Your task to perform on an android device: add a contact in the contacts app Image 0: 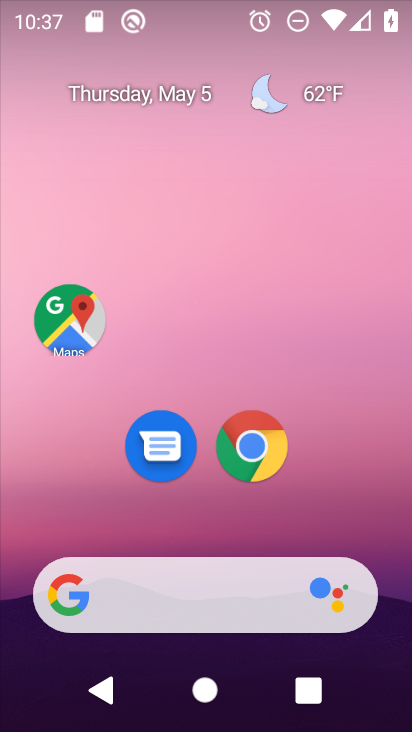
Step 0: drag from (251, 630) to (308, 217)
Your task to perform on an android device: add a contact in the contacts app Image 1: 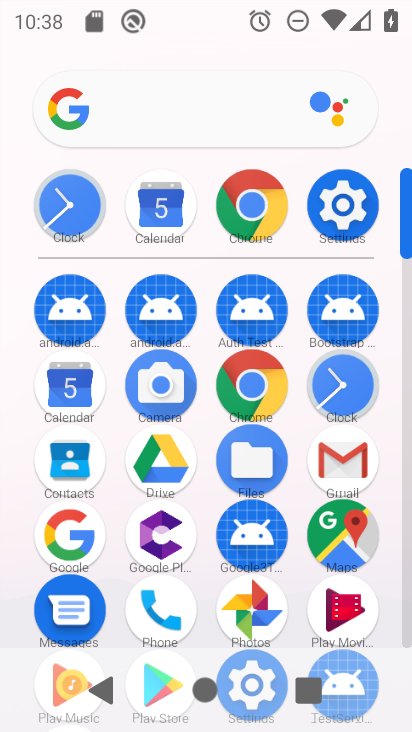
Step 1: click (138, 611)
Your task to perform on an android device: add a contact in the contacts app Image 2: 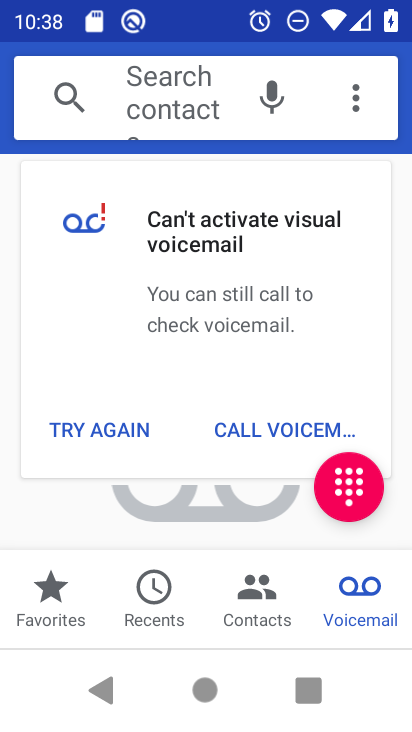
Step 2: click (250, 592)
Your task to perform on an android device: add a contact in the contacts app Image 3: 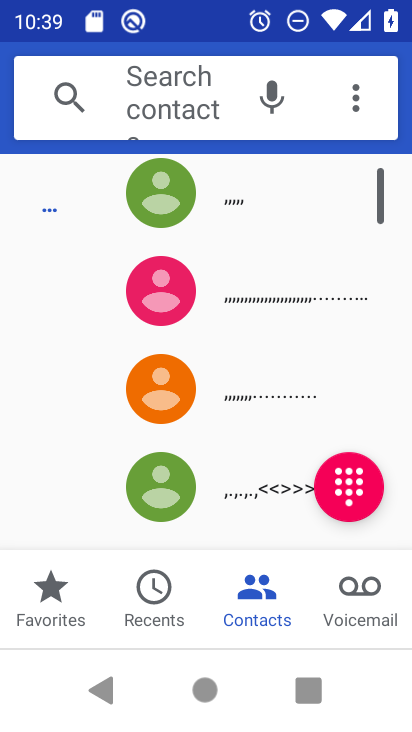
Step 3: drag from (193, 264) to (103, 498)
Your task to perform on an android device: add a contact in the contacts app Image 4: 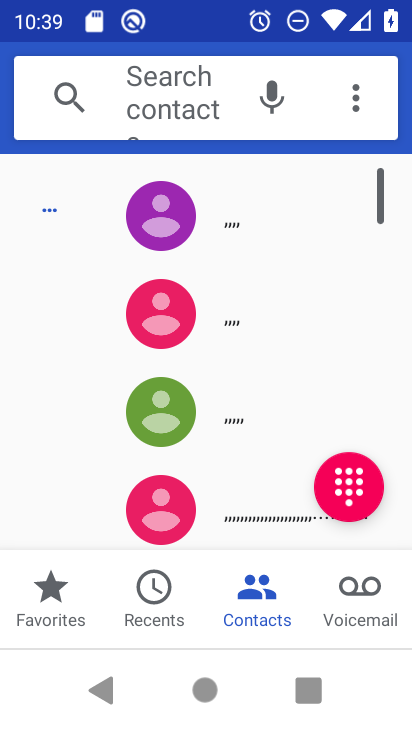
Step 4: drag from (245, 138) to (167, 458)
Your task to perform on an android device: add a contact in the contacts app Image 5: 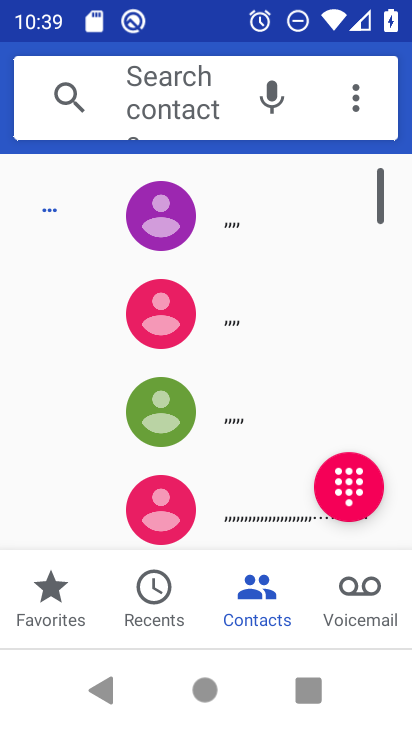
Step 5: drag from (246, 249) to (211, 502)
Your task to perform on an android device: add a contact in the contacts app Image 6: 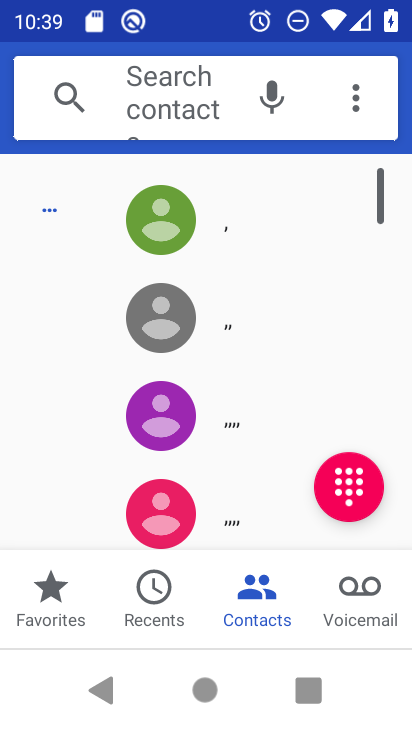
Step 6: drag from (222, 239) to (191, 544)
Your task to perform on an android device: add a contact in the contacts app Image 7: 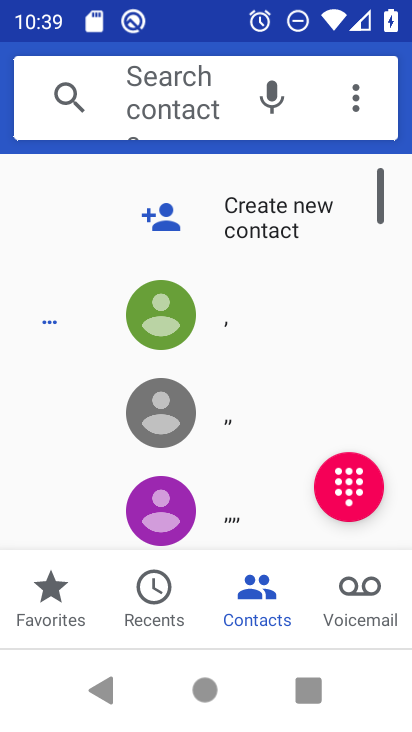
Step 7: click (289, 214)
Your task to perform on an android device: add a contact in the contacts app Image 8: 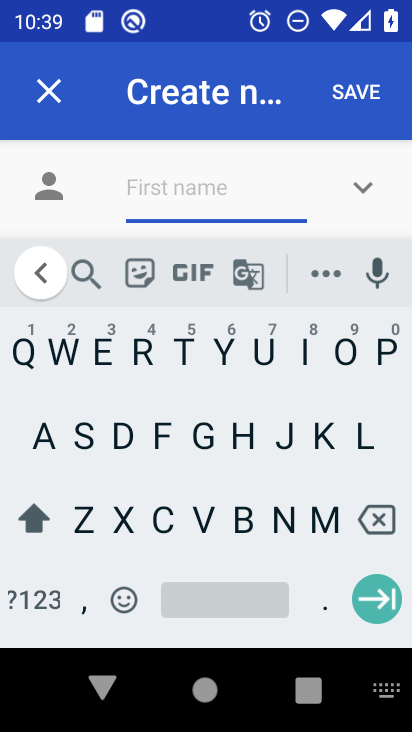
Step 8: click (147, 346)
Your task to perform on an android device: add a contact in the contacts app Image 9: 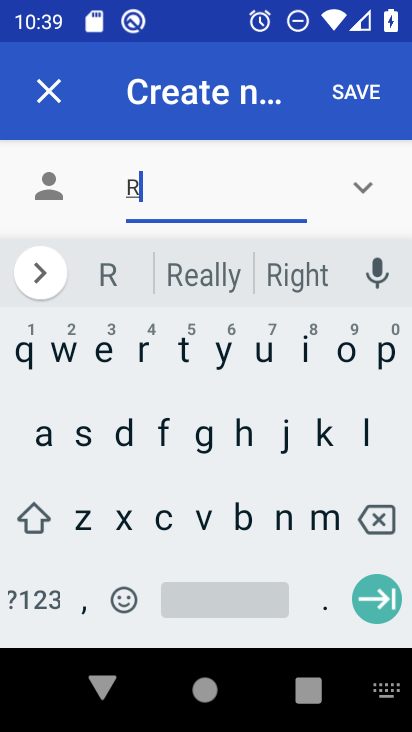
Step 9: click (307, 352)
Your task to perform on an android device: add a contact in the contacts app Image 10: 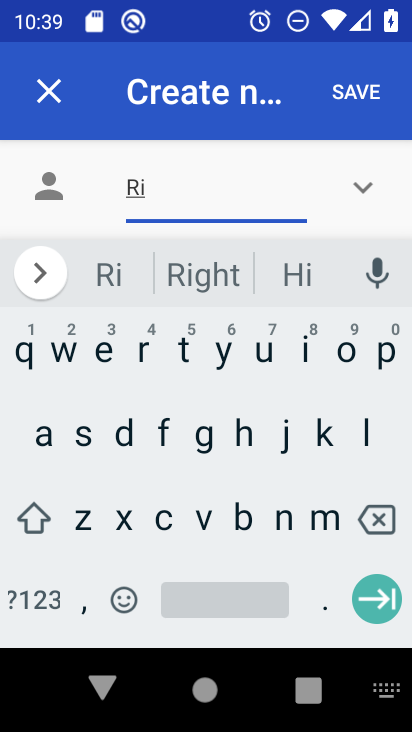
Step 10: click (224, 351)
Your task to perform on an android device: add a contact in the contacts app Image 11: 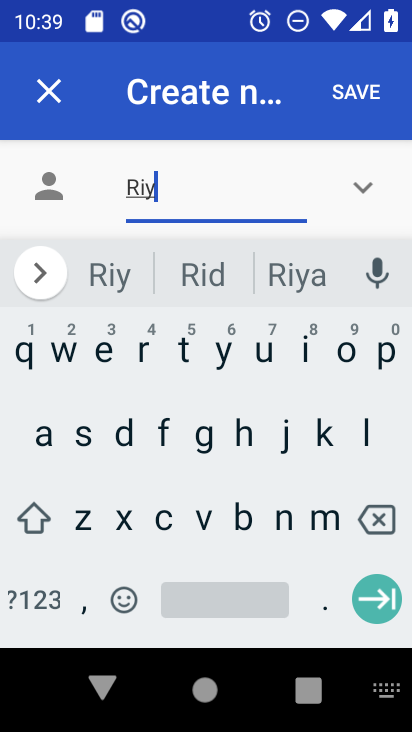
Step 11: click (40, 433)
Your task to perform on an android device: add a contact in the contacts app Image 12: 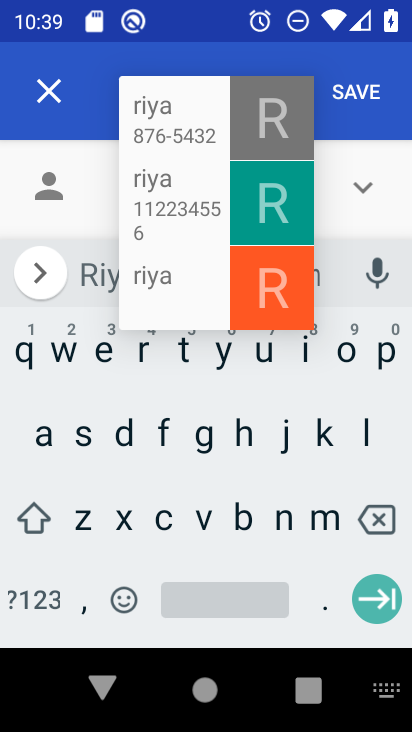
Step 12: click (208, 586)
Your task to perform on an android device: add a contact in the contacts app Image 13: 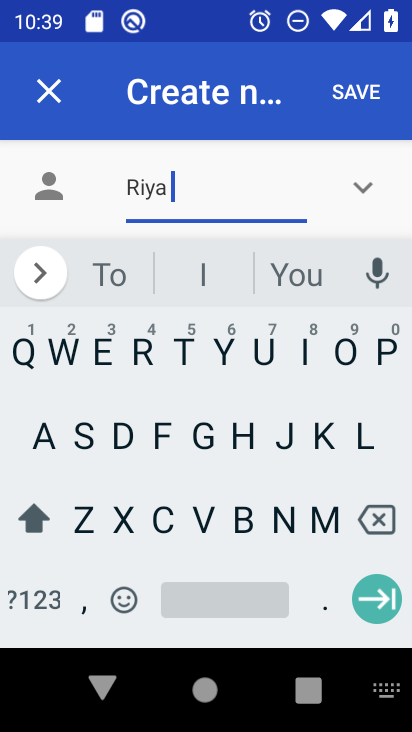
Step 13: click (138, 364)
Your task to perform on an android device: add a contact in the contacts app Image 14: 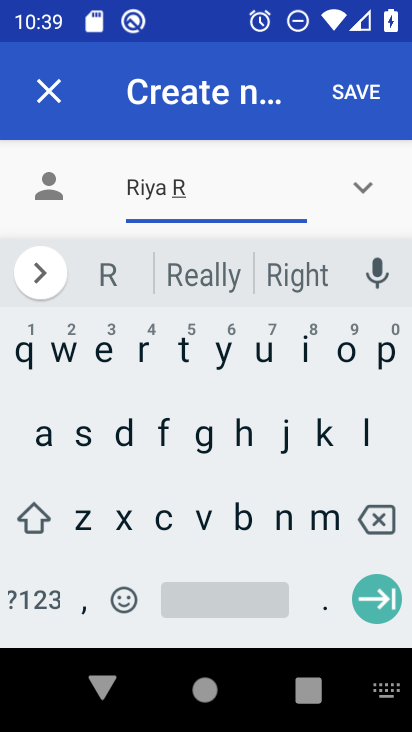
Step 14: click (41, 435)
Your task to perform on an android device: add a contact in the contacts app Image 15: 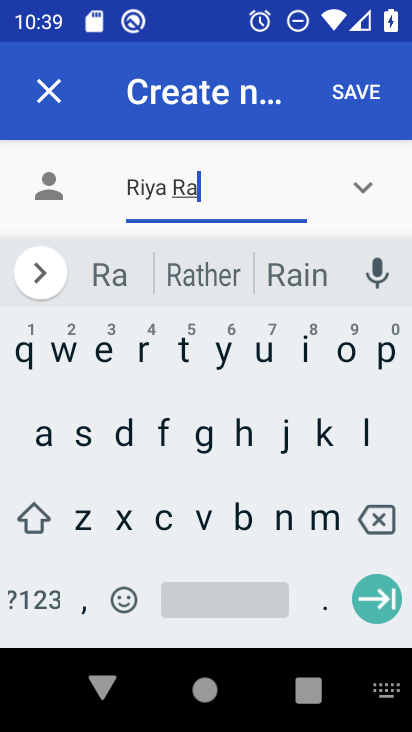
Step 15: click (303, 349)
Your task to perform on an android device: add a contact in the contacts app Image 16: 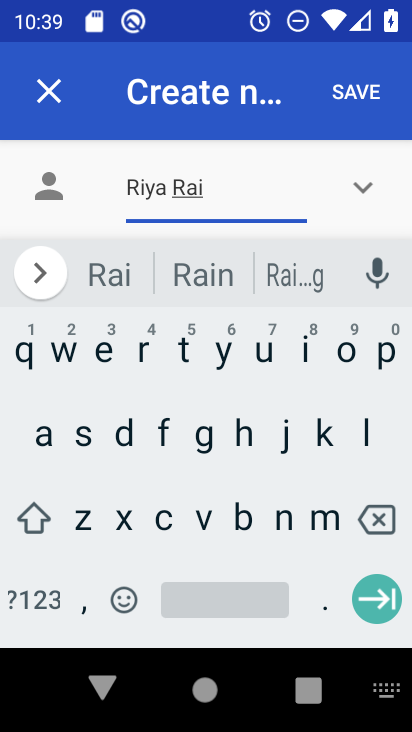
Step 16: drag from (285, 212) to (305, 104)
Your task to perform on an android device: add a contact in the contacts app Image 17: 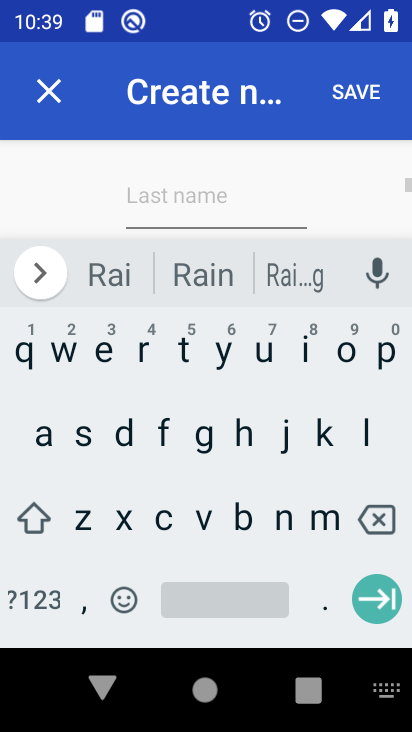
Step 17: click (217, 160)
Your task to perform on an android device: add a contact in the contacts app Image 18: 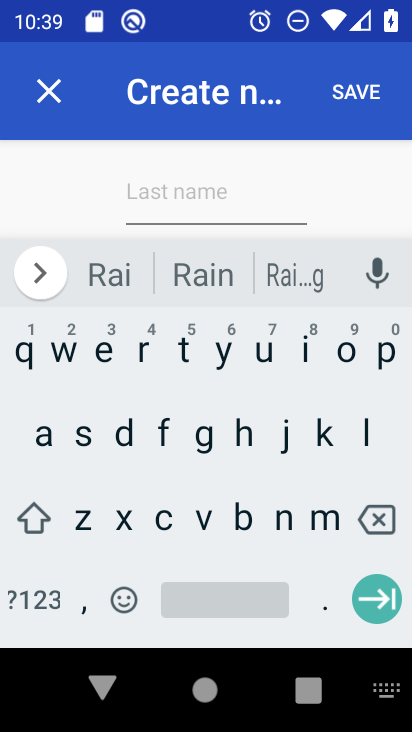
Step 18: press back button
Your task to perform on an android device: add a contact in the contacts app Image 19: 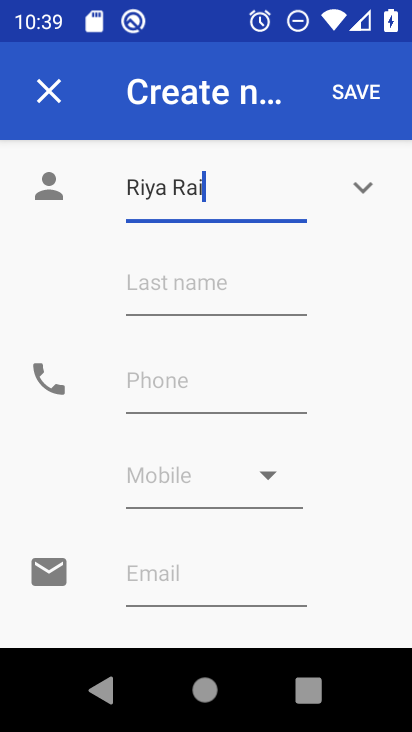
Step 19: click (188, 289)
Your task to perform on an android device: add a contact in the contacts app Image 20: 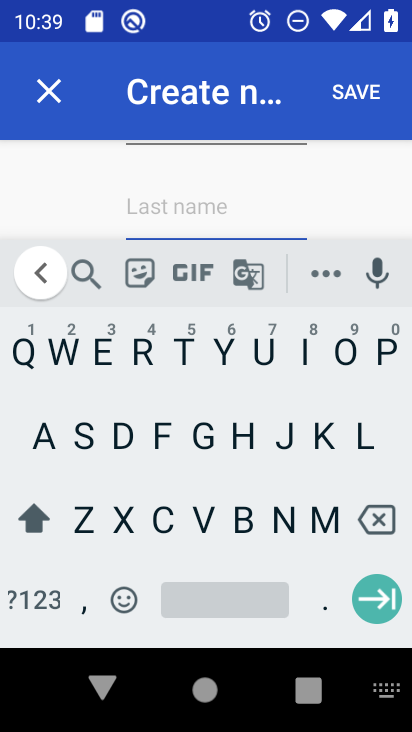
Step 20: press back button
Your task to perform on an android device: add a contact in the contacts app Image 21: 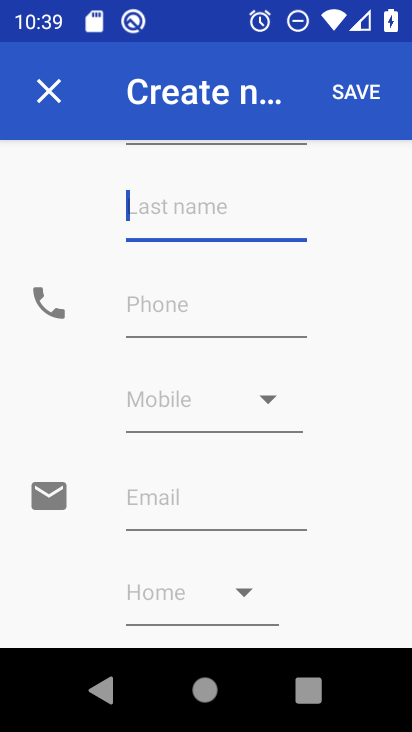
Step 21: click (171, 404)
Your task to perform on an android device: add a contact in the contacts app Image 22: 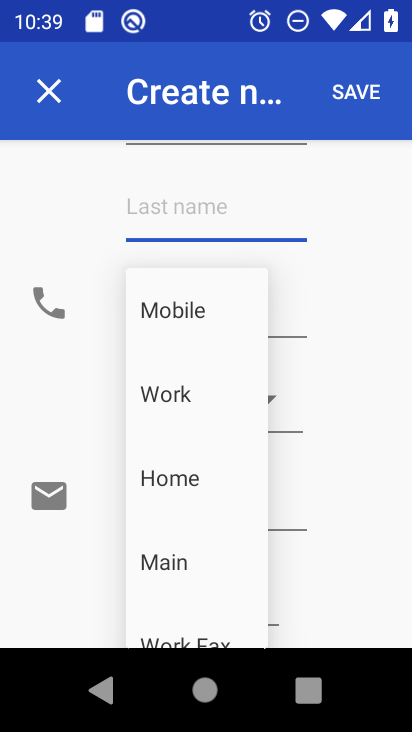
Step 22: click (5, 423)
Your task to perform on an android device: add a contact in the contacts app Image 23: 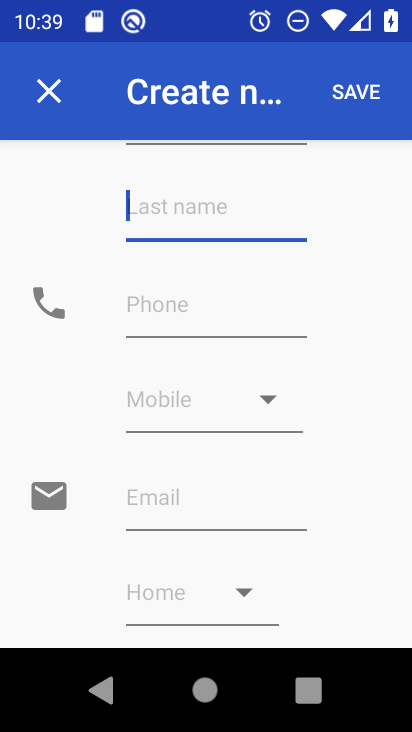
Step 23: click (179, 404)
Your task to perform on an android device: add a contact in the contacts app Image 24: 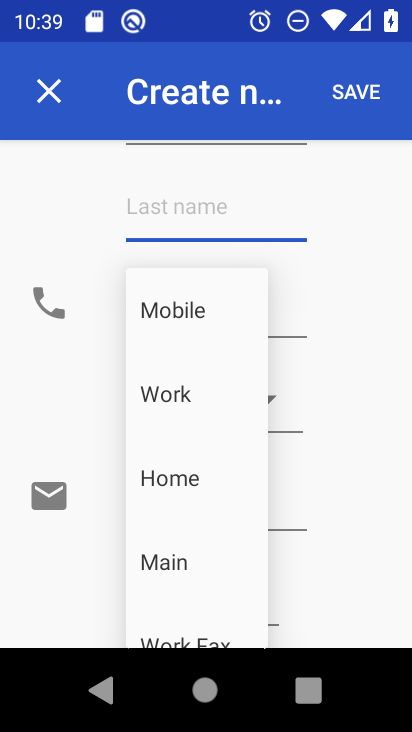
Step 24: click (182, 316)
Your task to perform on an android device: add a contact in the contacts app Image 25: 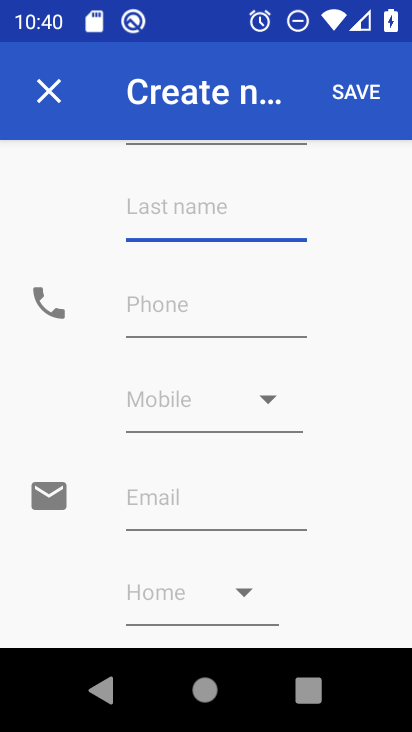
Step 25: click (181, 311)
Your task to perform on an android device: add a contact in the contacts app Image 26: 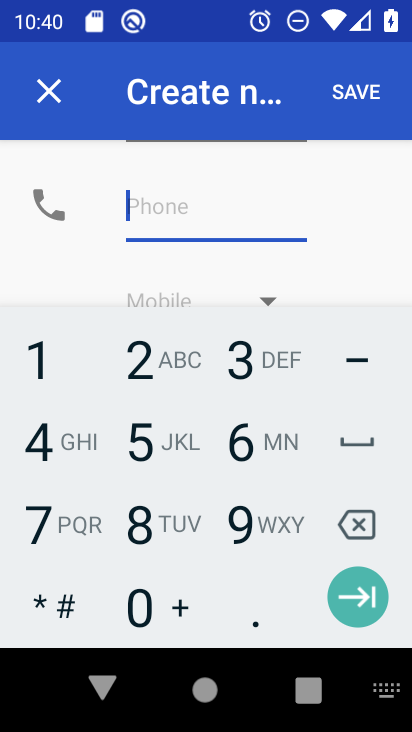
Step 26: click (248, 521)
Your task to perform on an android device: add a contact in the contacts app Image 27: 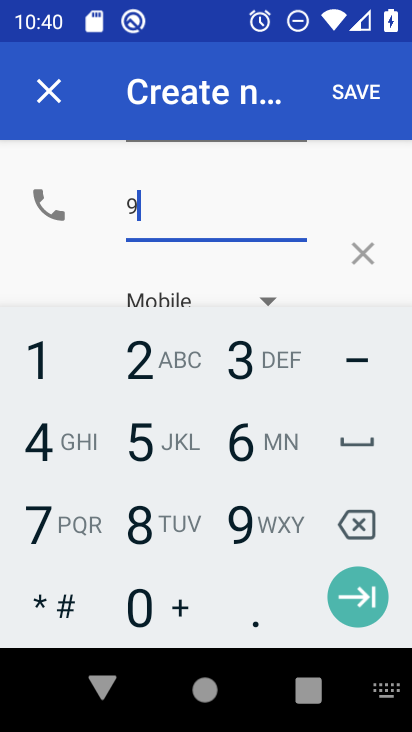
Step 27: click (151, 520)
Your task to perform on an android device: add a contact in the contacts app Image 28: 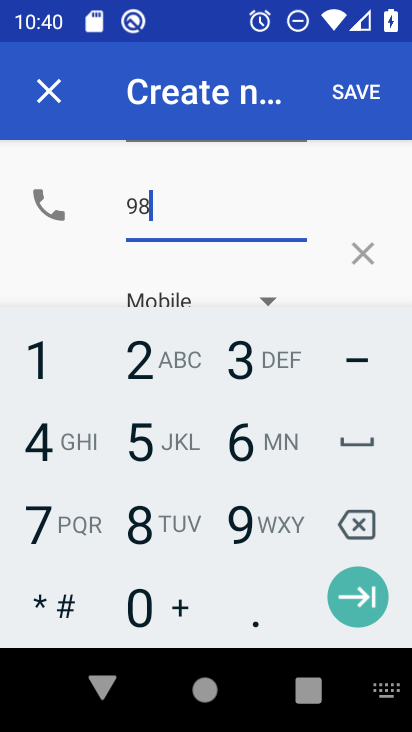
Step 28: click (258, 350)
Your task to perform on an android device: add a contact in the contacts app Image 29: 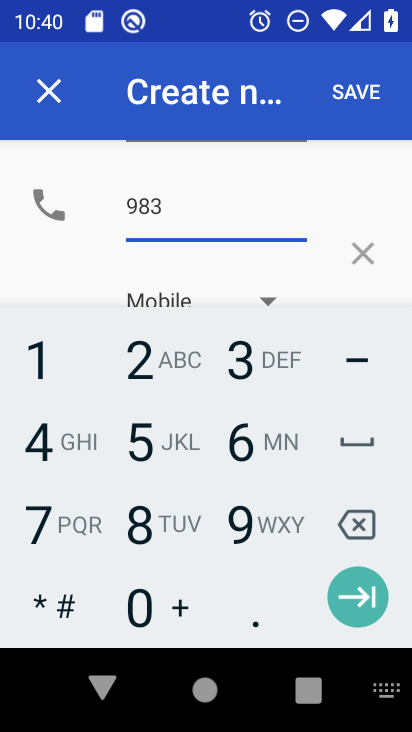
Step 29: click (246, 522)
Your task to perform on an android device: add a contact in the contacts app Image 30: 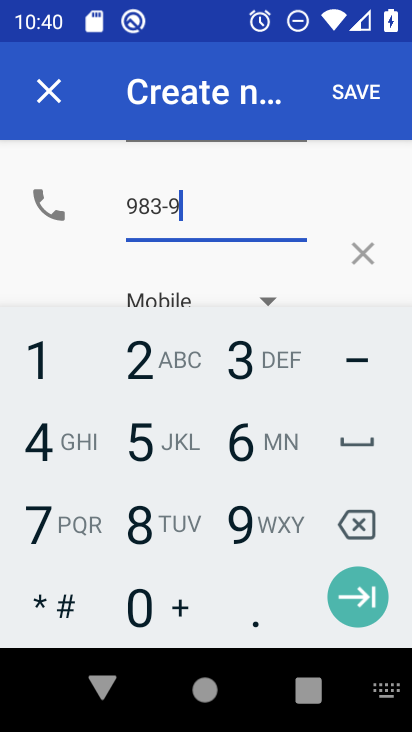
Step 30: click (155, 362)
Your task to perform on an android device: add a contact in the contacts app Image 31: 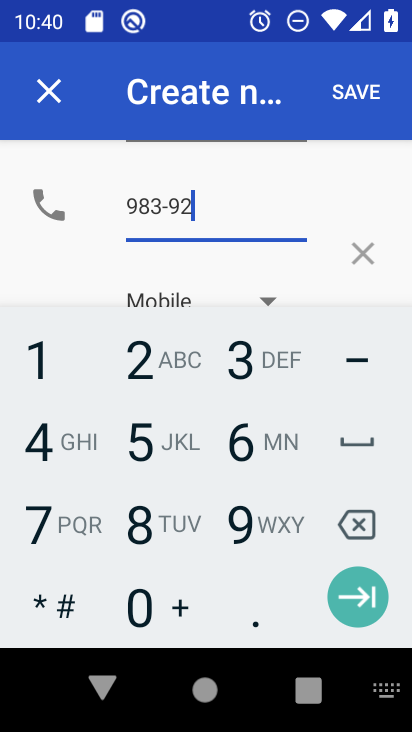
Step 31: click (243, 443)
Your task to perform on an android device: add a contact in the contacts app Image 32: 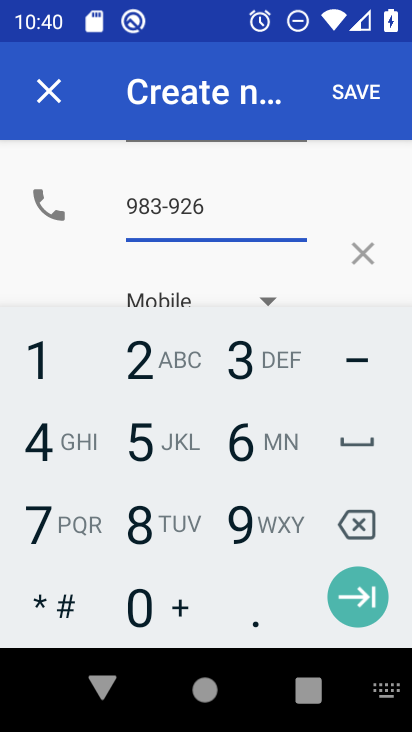
Step 32: click (131, 446)
Your task to perform on an android device: add a contact in the contacts app Image 33: 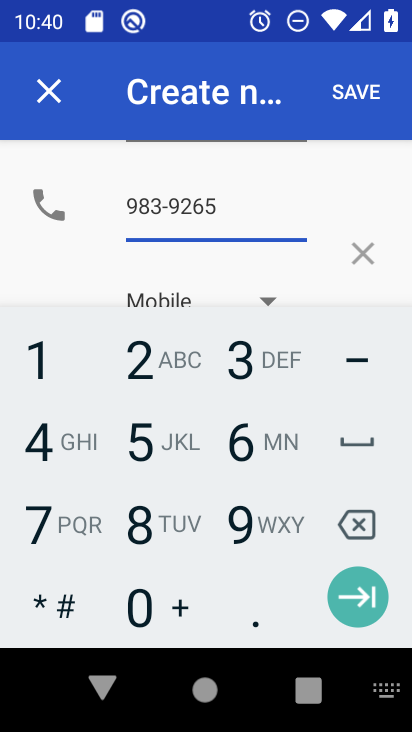
Step 33: click (50, 457)
Your task to perform on an android device: add a contact in the contacts app Image 34: 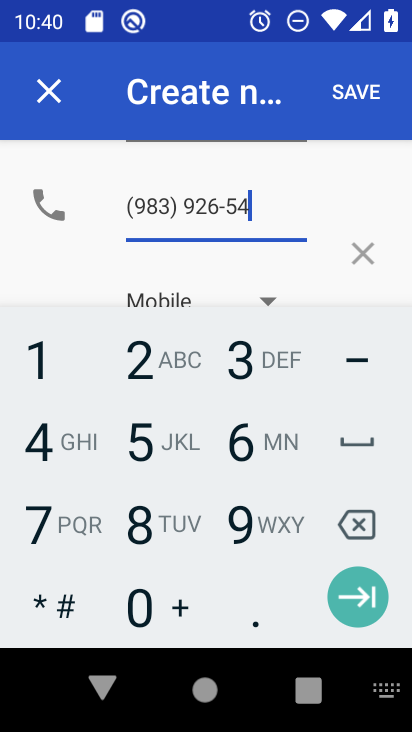
Step 34: click (152, 350)
Your task to perform on an android device: add a contact in the contacts app Image 35: 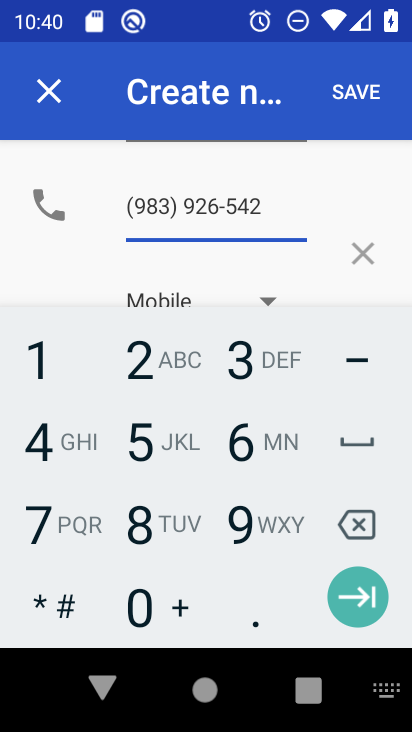
Step 35: click (227, 525)
Your task to perform on an android device: add a contact in the contacts app Image 36: 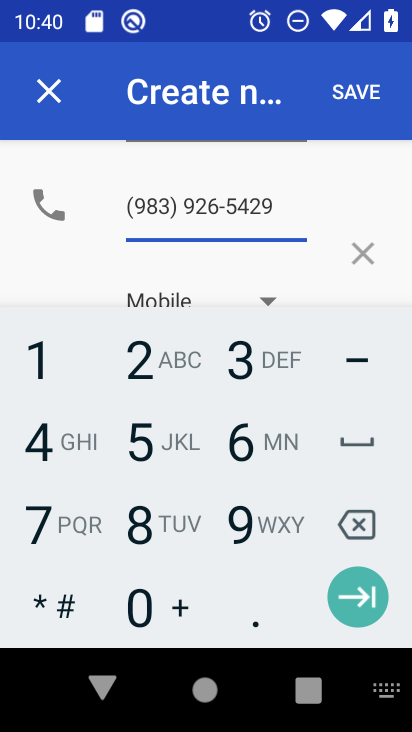
Step 36: click (350, 99)
Your task to perform on an android device: add a contact in the contacts app Image 37: 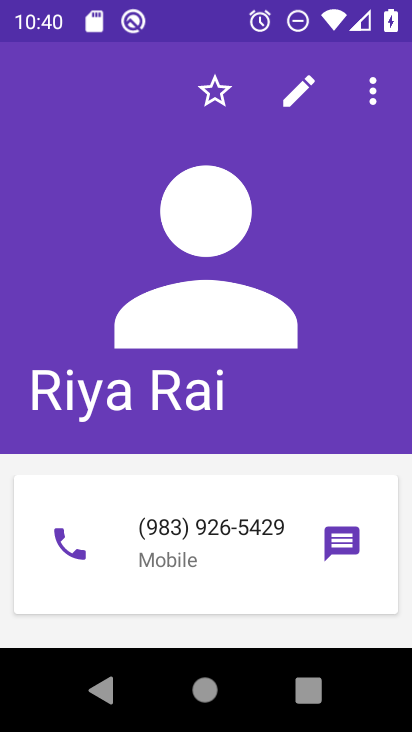
Step 37: task complete